Your task to perform on an android device: Open Chrome and go to settings Image 0: 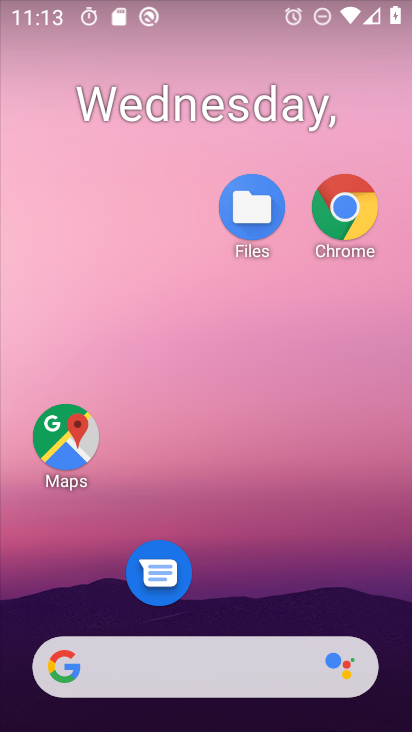
Step 0: drag from (258, 652) to (276, 183)
Your task to perform on an android device: Open Chrome and go to settings Image 1: 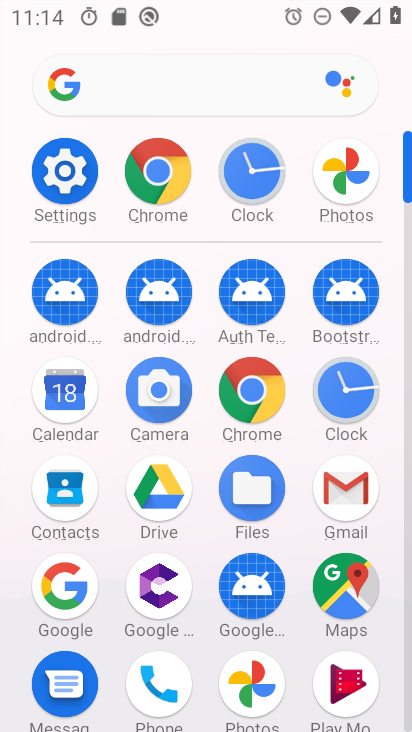
Step 1: click (234, 416)
Your task to perform on an android device: Open Chrome and go to settings Image 2: 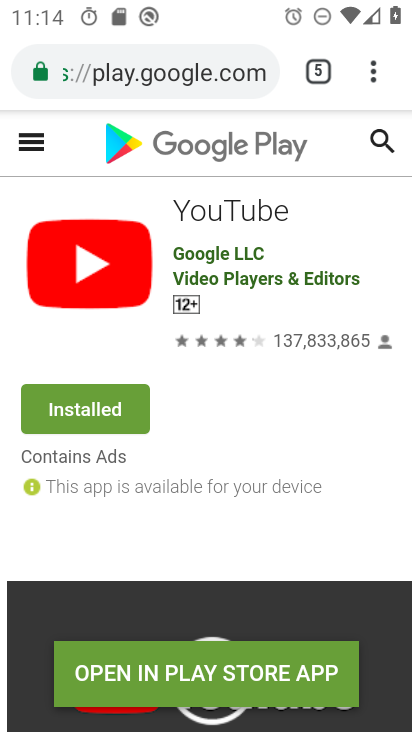
Step 2: click (380, 77)
Your task to perform on an android device: Open Chrome and go to settings Image 3: 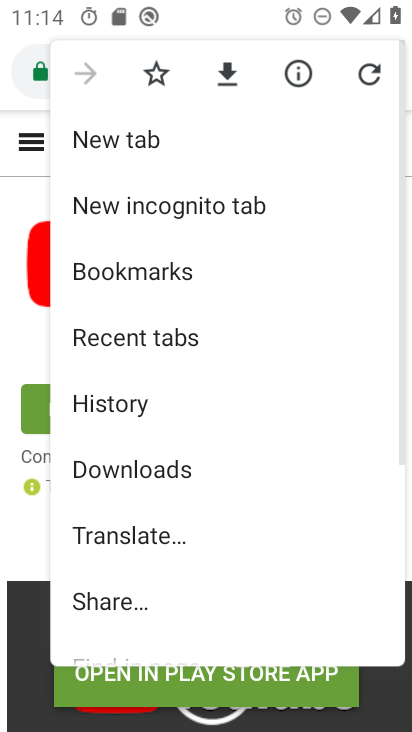
Step 3: drag from (212, 551) to (238, 292)
Your task to perform on an android device: Open Chrome and go to settings Image 4: 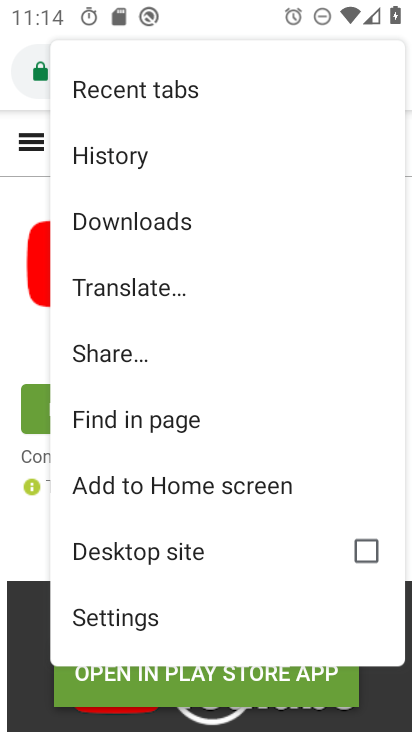
Step 4: click (152, 613)
Your task to perform on an android device: Open Chrome and go to settings Image 5: 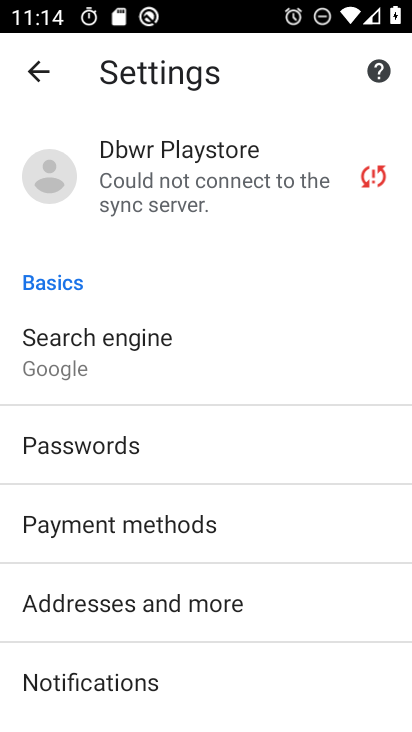
Step 5: task complete